Your task to perform on an android device: Open network settings Image 0: 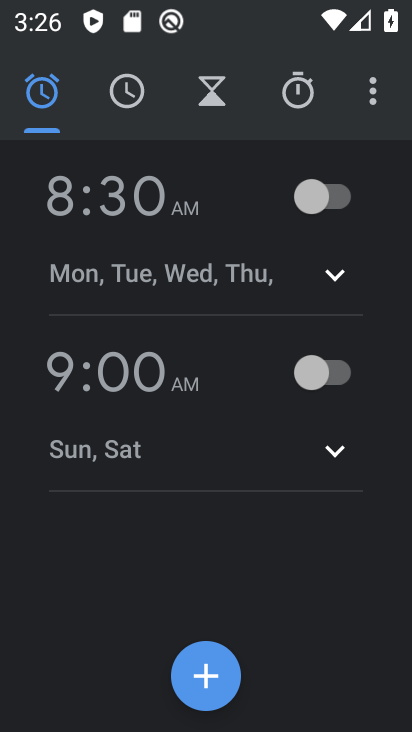
Step 0: press home button
Your task to perform on an android device: Open network settings Image 1: 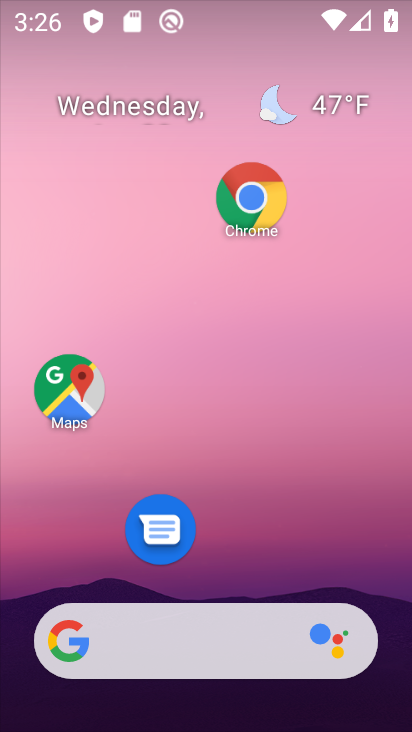
Step 1: drag from (241, 547) to (249, 110)
Your task to perform on an android device: Open network settings Image 2: 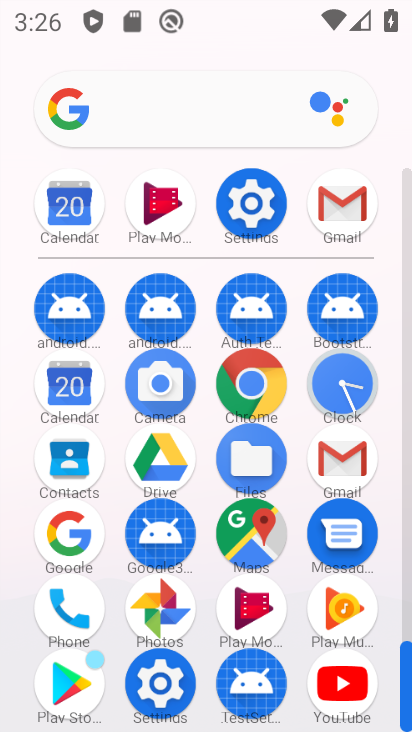
Step 2: click (256, 209)
Your task to perform on an android device: Open network settings Image 3: 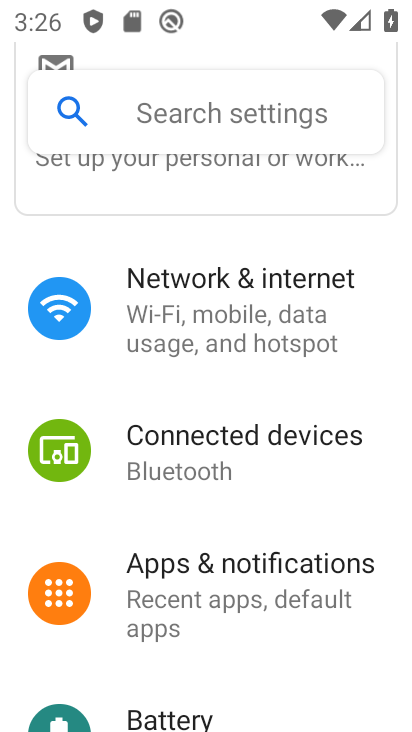
Step 3: click (213, 312)
Your task to perform on an android device: Open network settings Image 4: 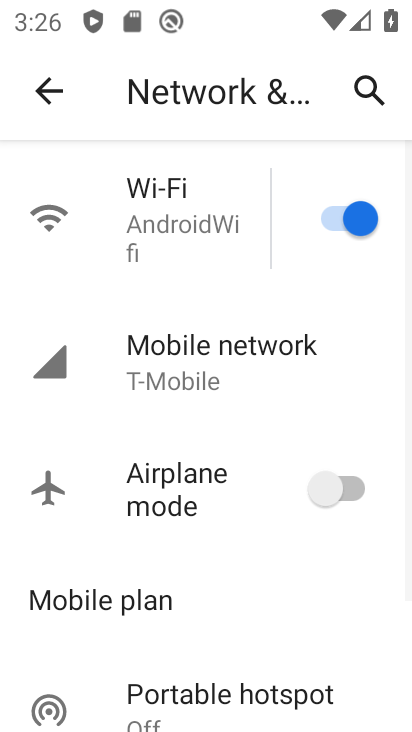
Step 4: task complete